Your task to perform on an android device: Open Google Chrome and open the bookmarks view Image 0: 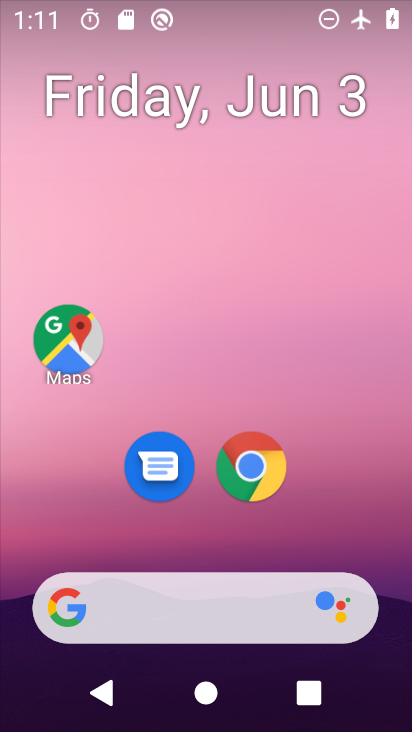
Step 0: click (246, 486)
Your task to perform on an android device: Open Google Chrome and open the bookmarks view Image 1: 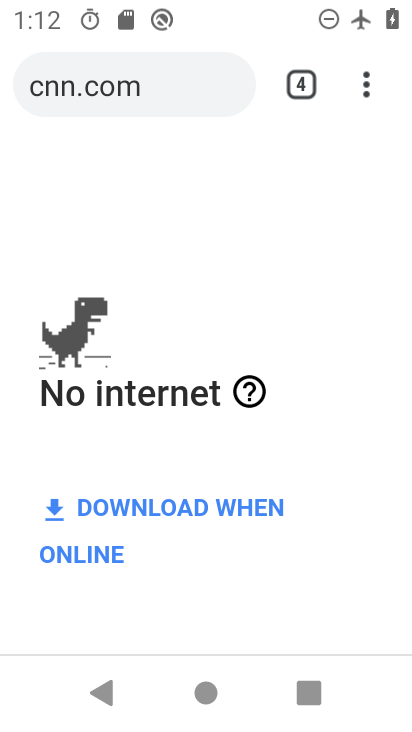
Step 1: task complete